Your task to perform on an android device: What are the new products by Samsung? Image 0: 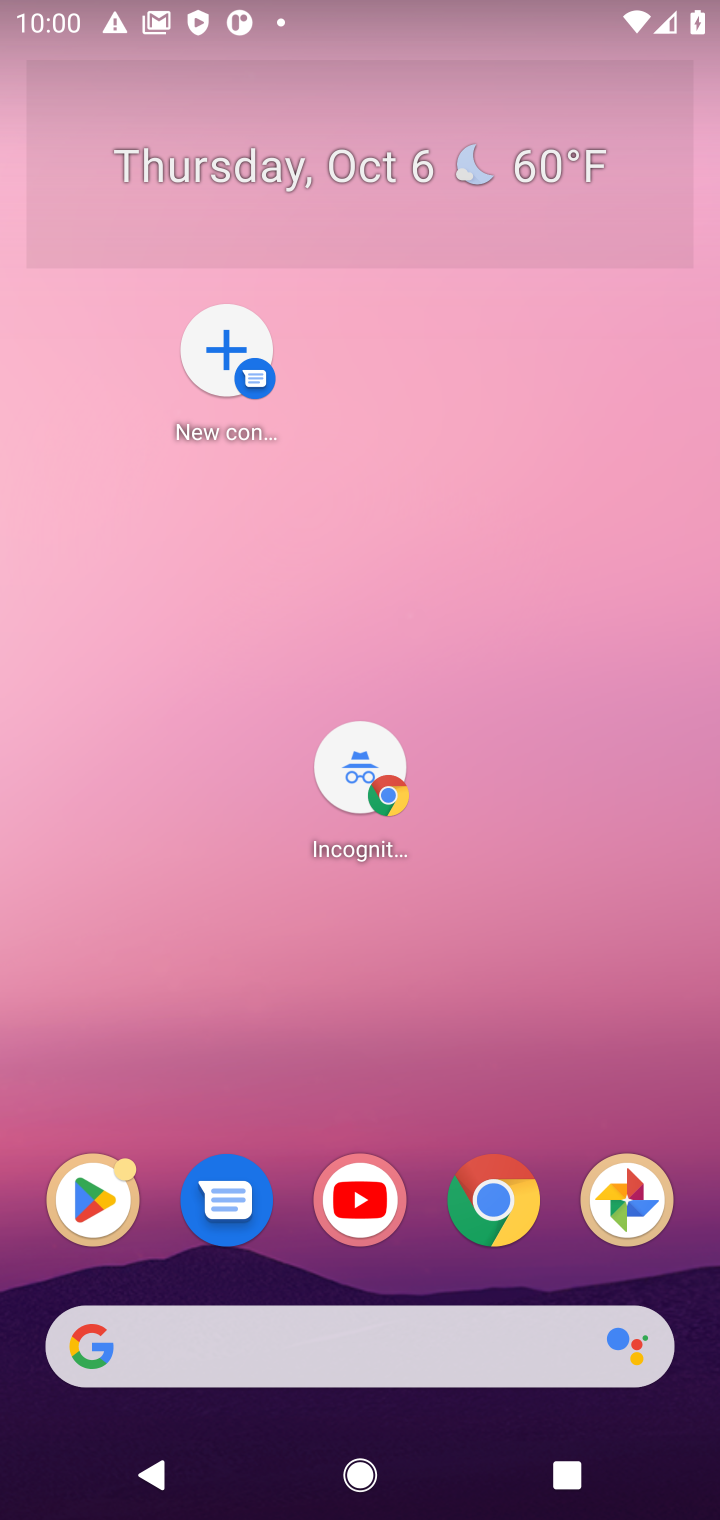
Step 0: drag from (275, 1327) to (275, 406)
Your task to perform on an android device: What are the new products by Samsung? Image 1: 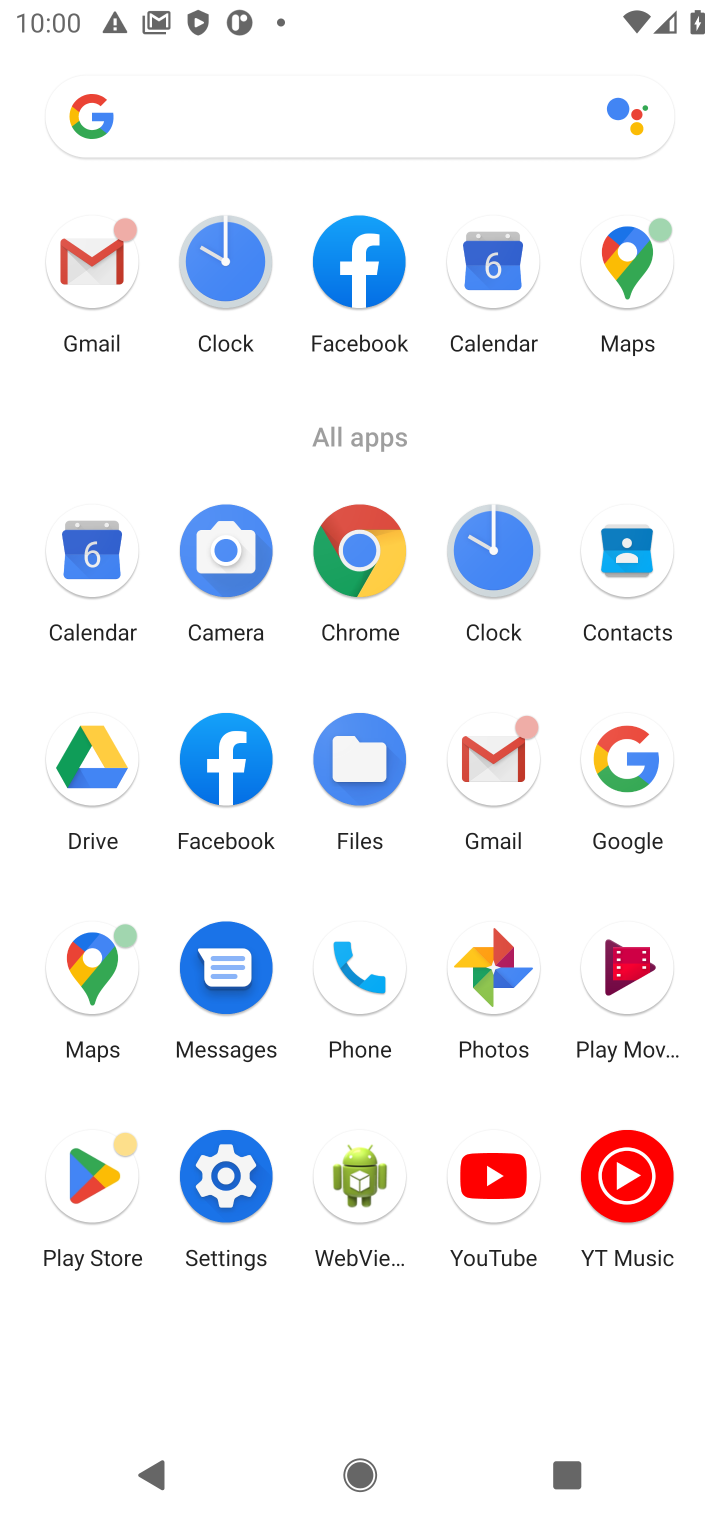
Step 1: click (625, 760)
Your task to perform on an android device: What are the new products by Samsung? Image 2: 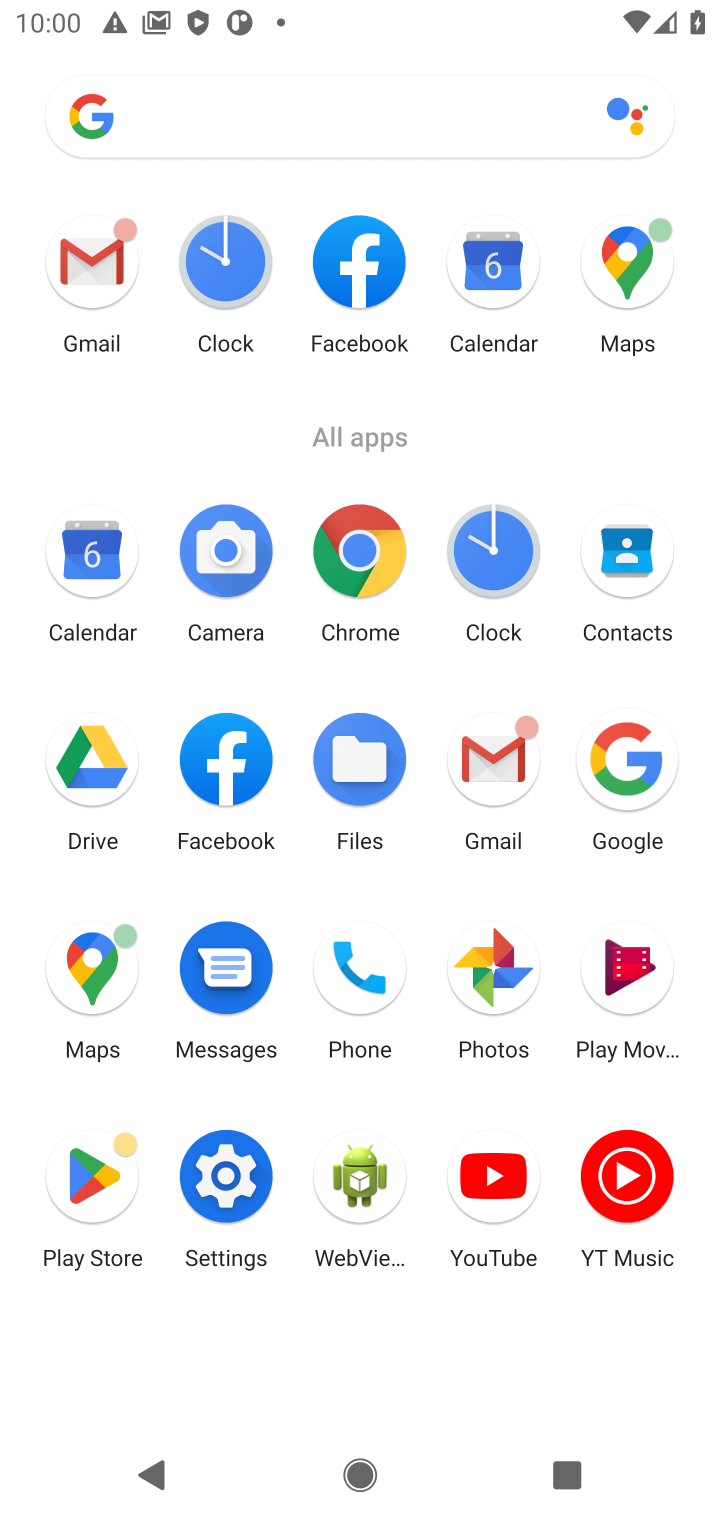
Step 2: click (625, 760)
Your task to perform on an android device: What are the new products by Samsung? Image 3: 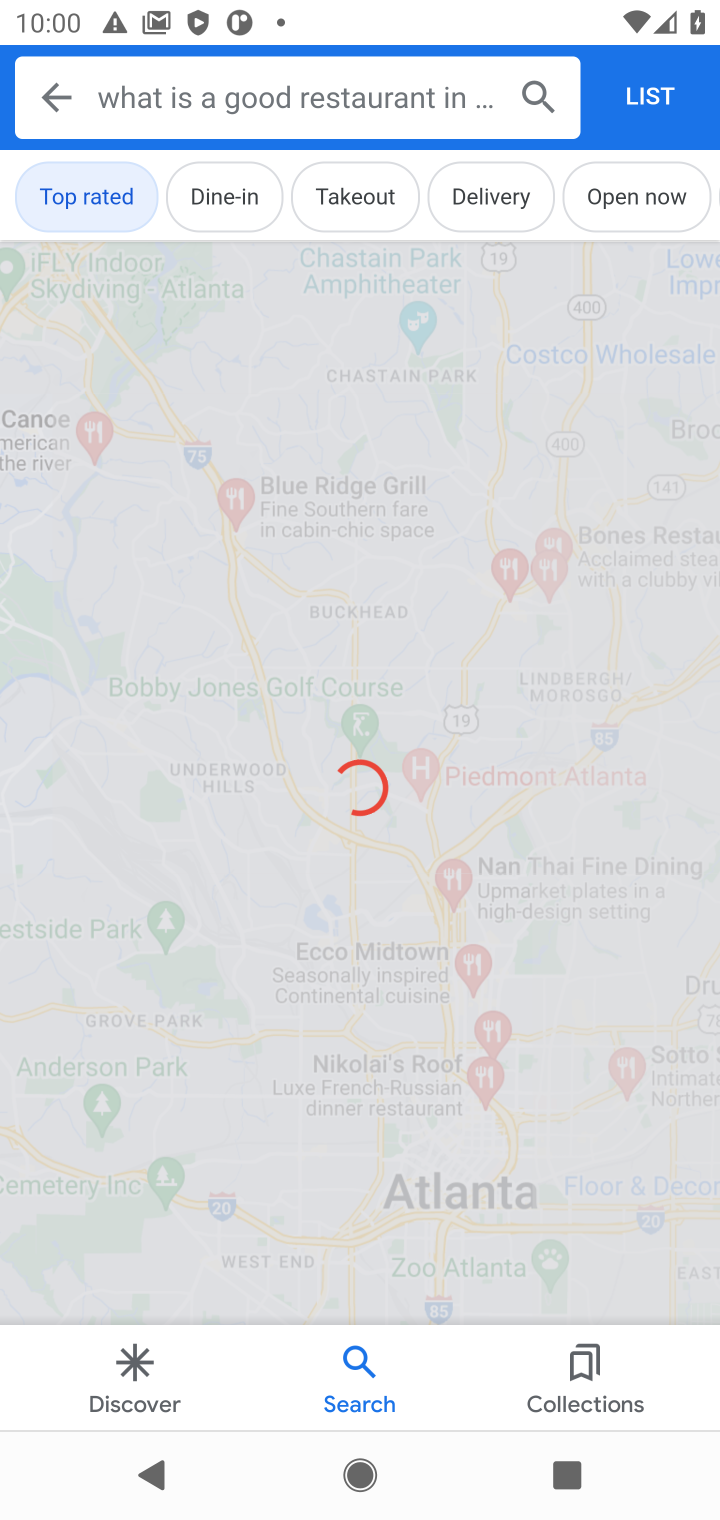
Step 3: click (456, 110)
Your task to perform on an android device: What are the new products by Samsung? Image 4: 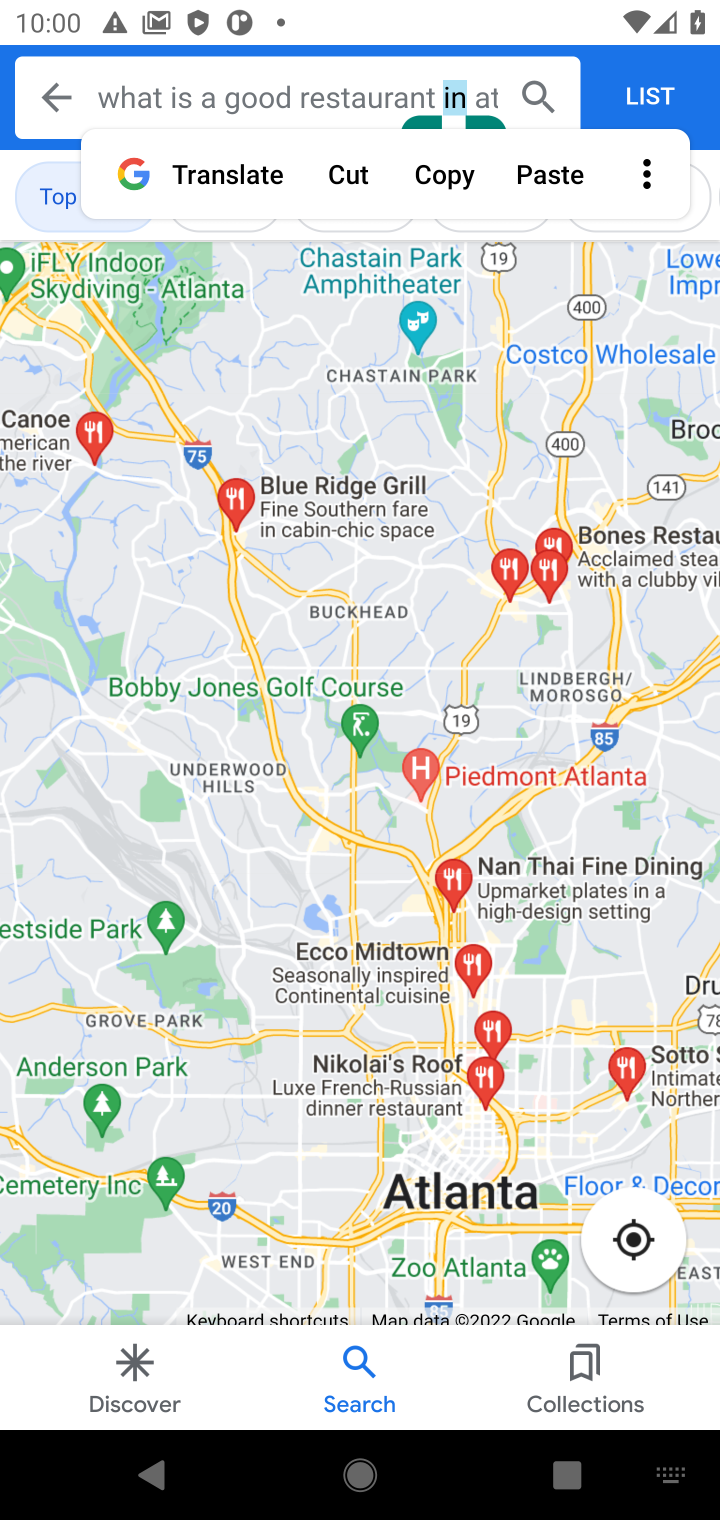
Step 4: click (547, 105)
Your task to perform on an android device: What are the new products by Samsung? Image 5: 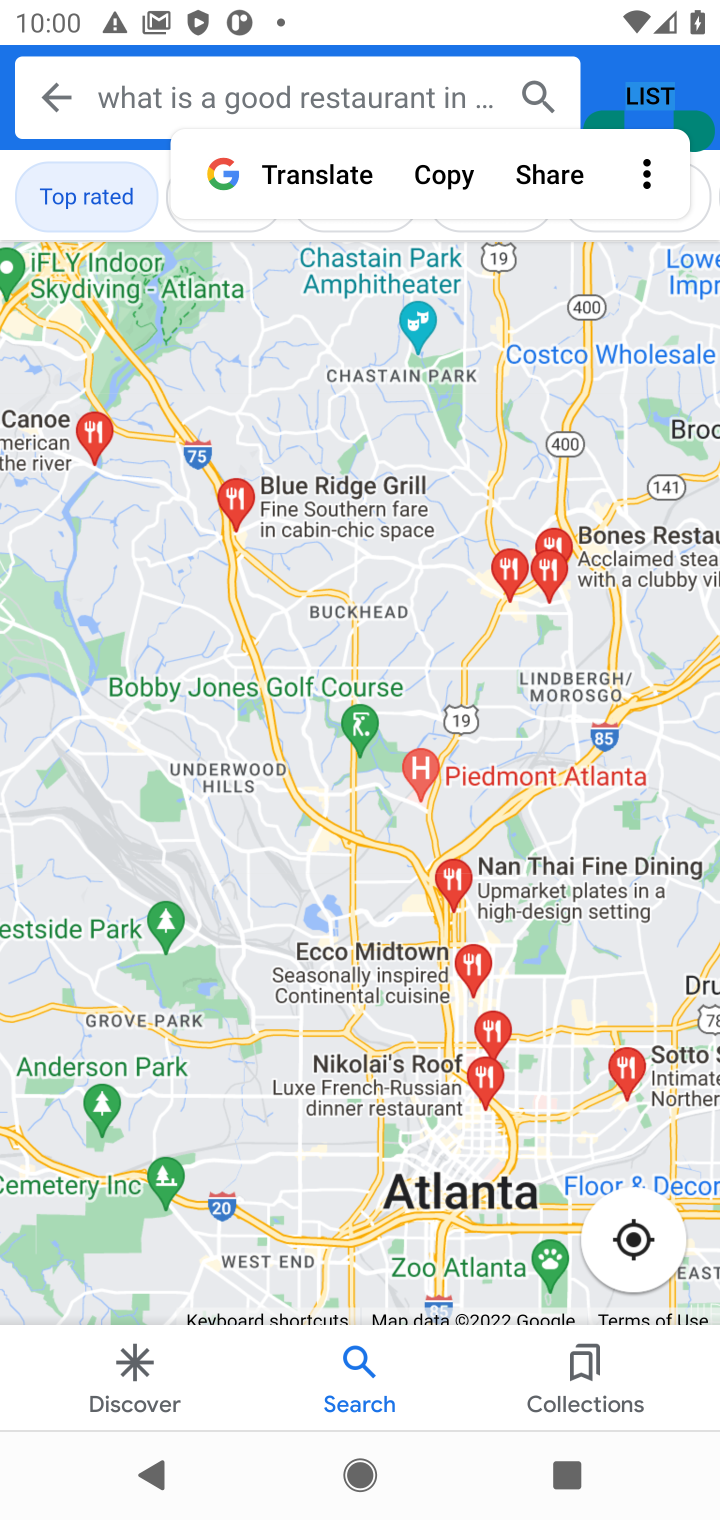
Step 5: click (31, 105)
Your task to perform on an android device: What are the new products by Samsung? Image 6: 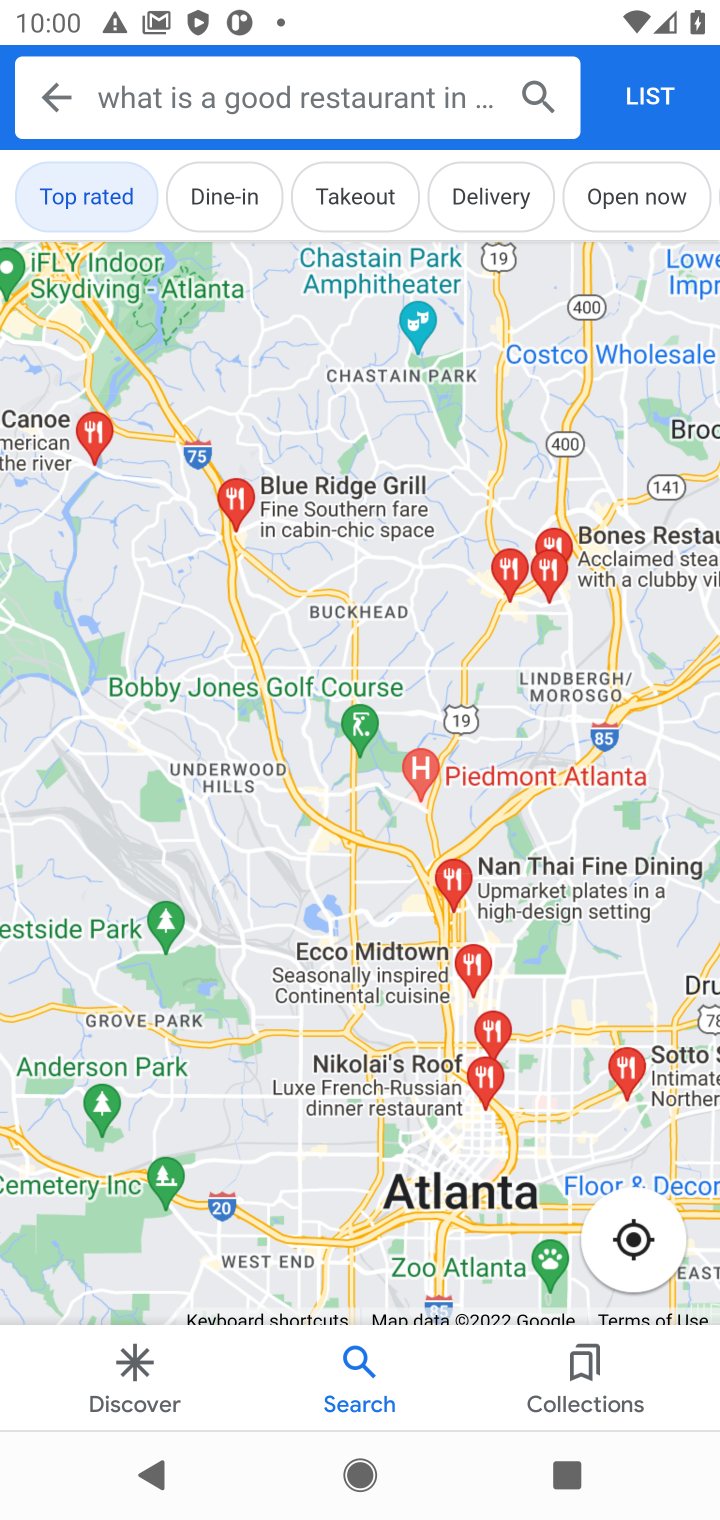
Step 6: click (48, 97)
Your task to perform on an android device: What are the new products by Samsung? Image 7: 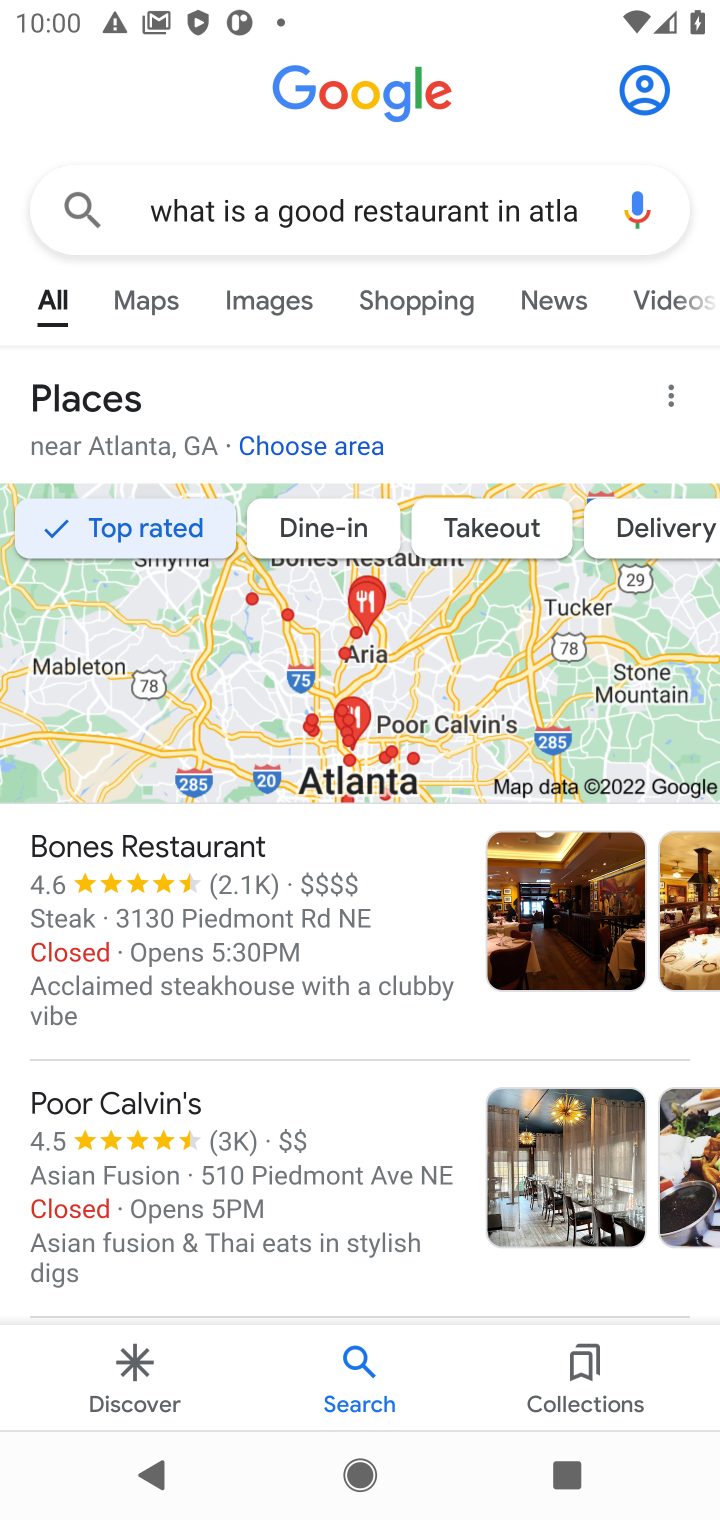
Step 7: click (377, 202)
Your task to perform on an android device: What are the new products by Samsung? Image 8: 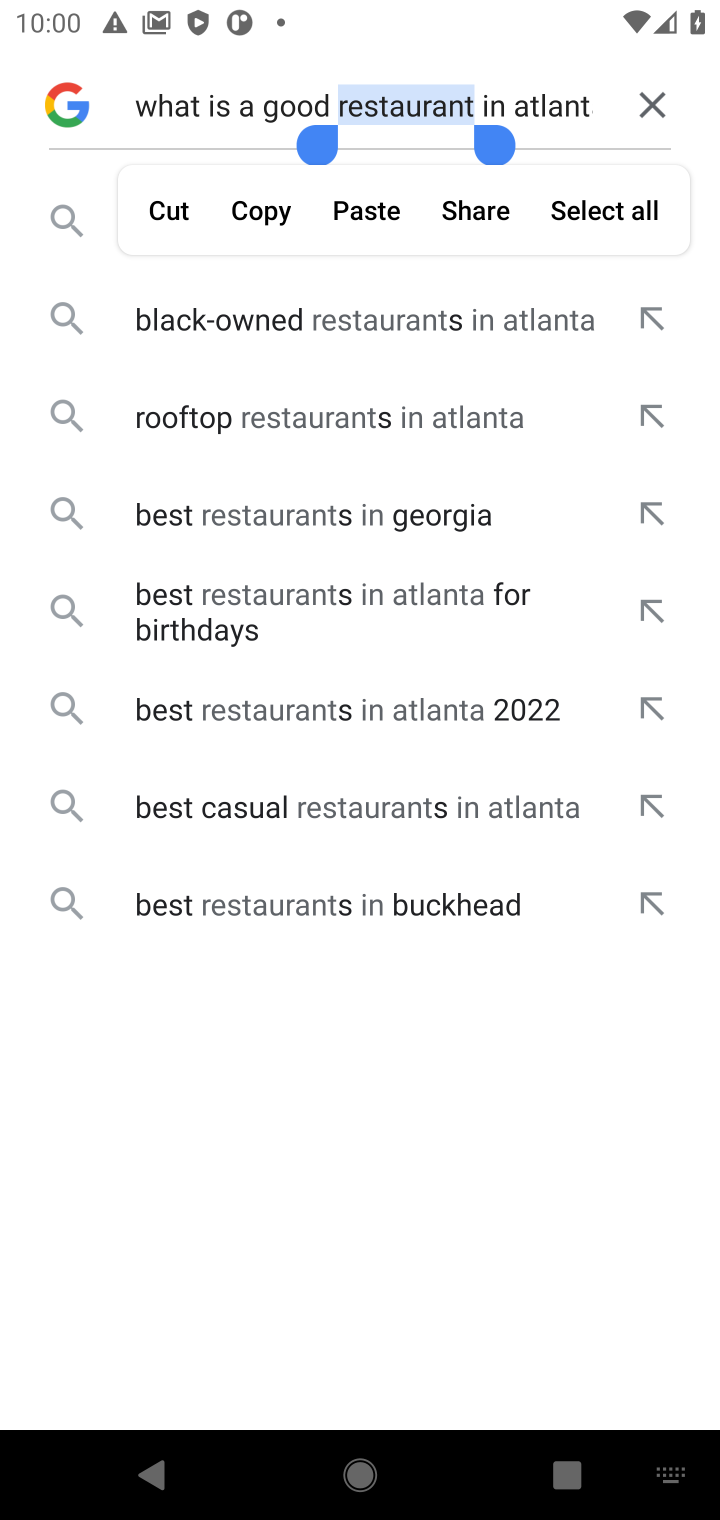
Step 8: click (654, 103)
Your task to perform on an android device: What are the new products by Samsung? Image 9: 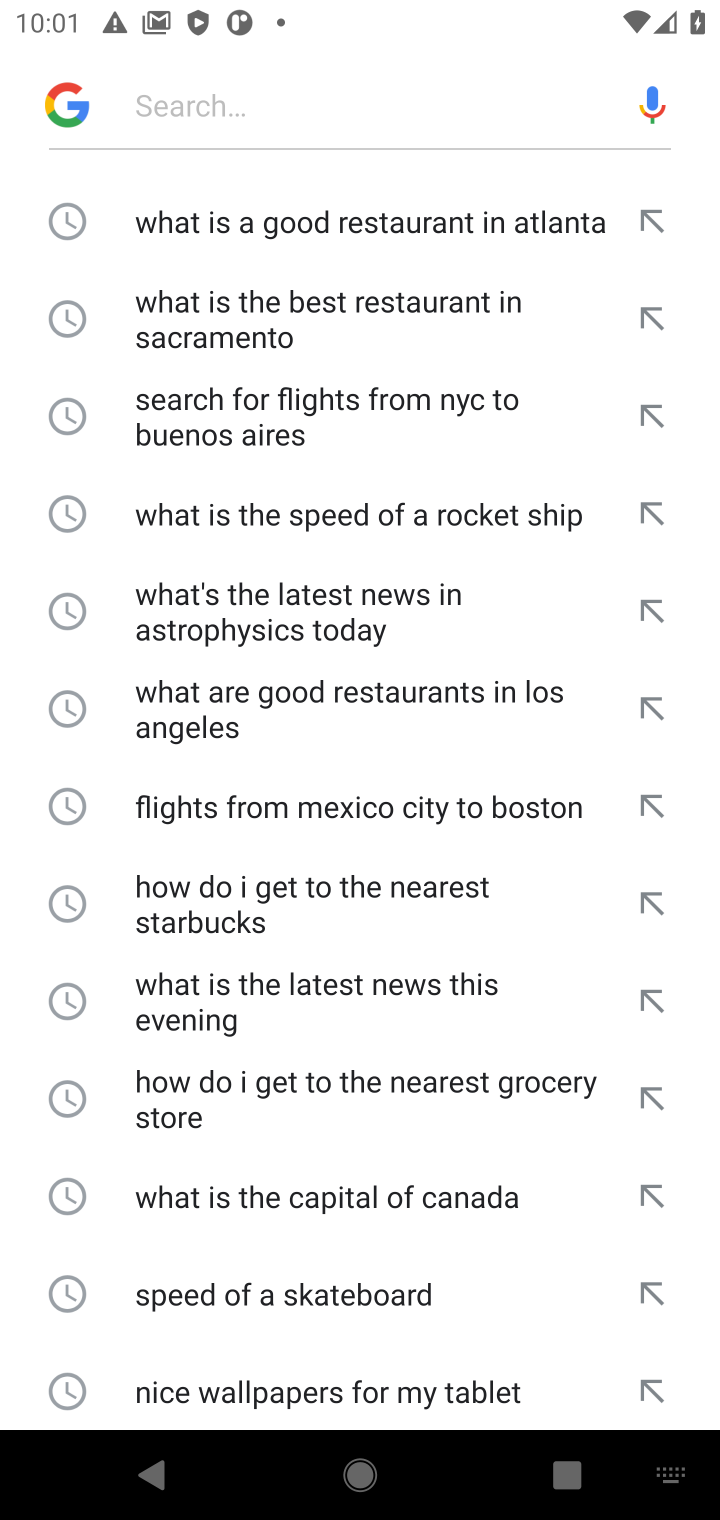
Step 9: type "What are the new products by Samsung?"
Your task to perform on an android device: What are the new products by Samsung? Image 10: 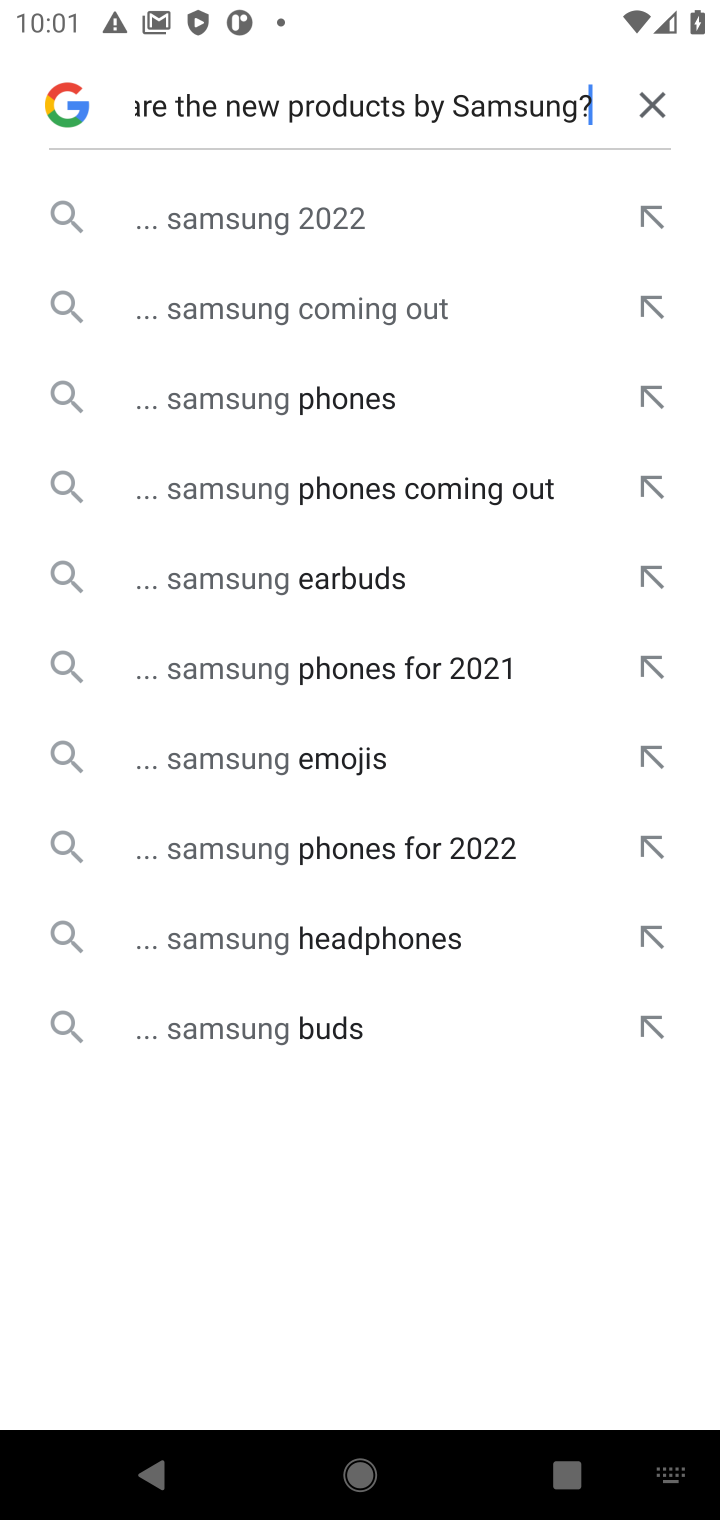
Step 10: click (341, 225)
Your task to perform on an android device: What are the new products by Samsung? Image 11: 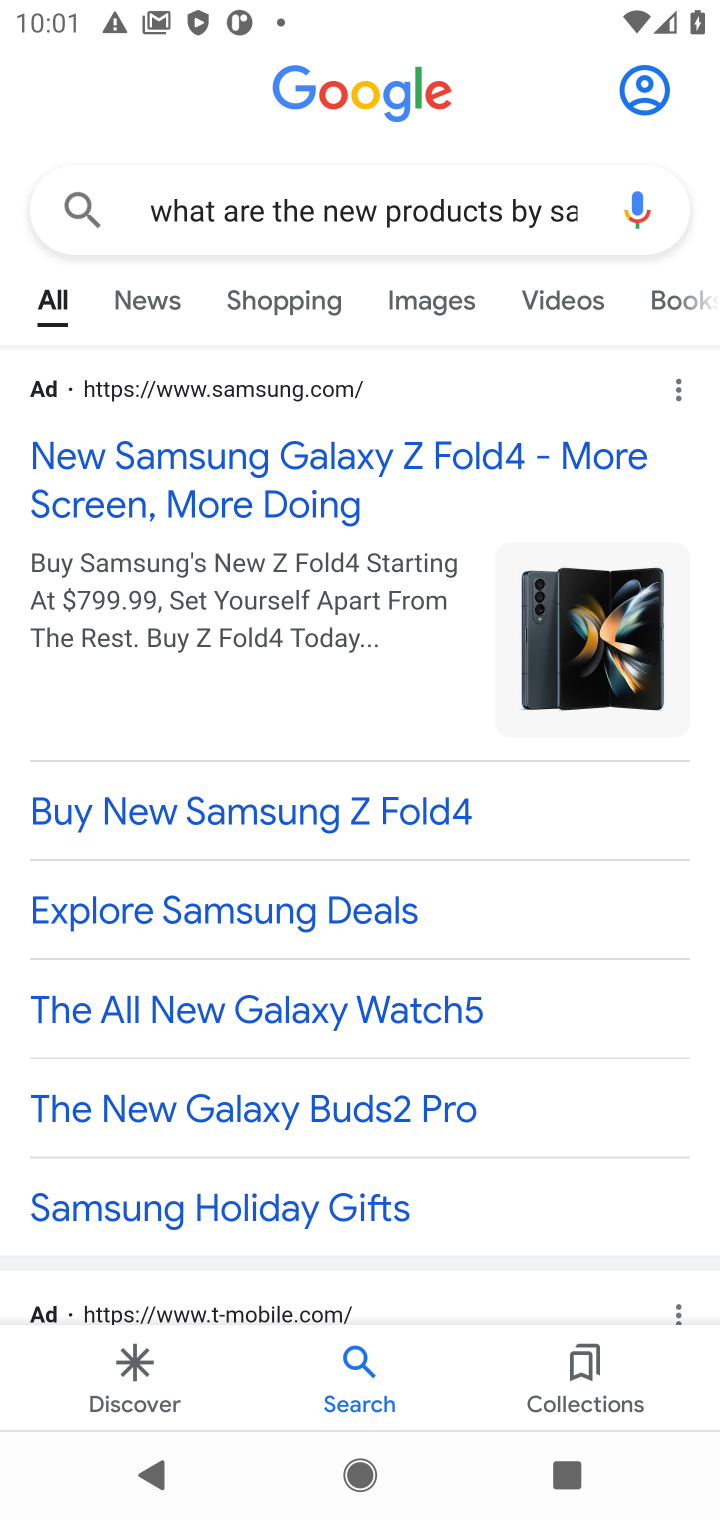
Step 11: click (318, 769)
Your task to perform on an android device: What are the new products by Samsung? Image 12: 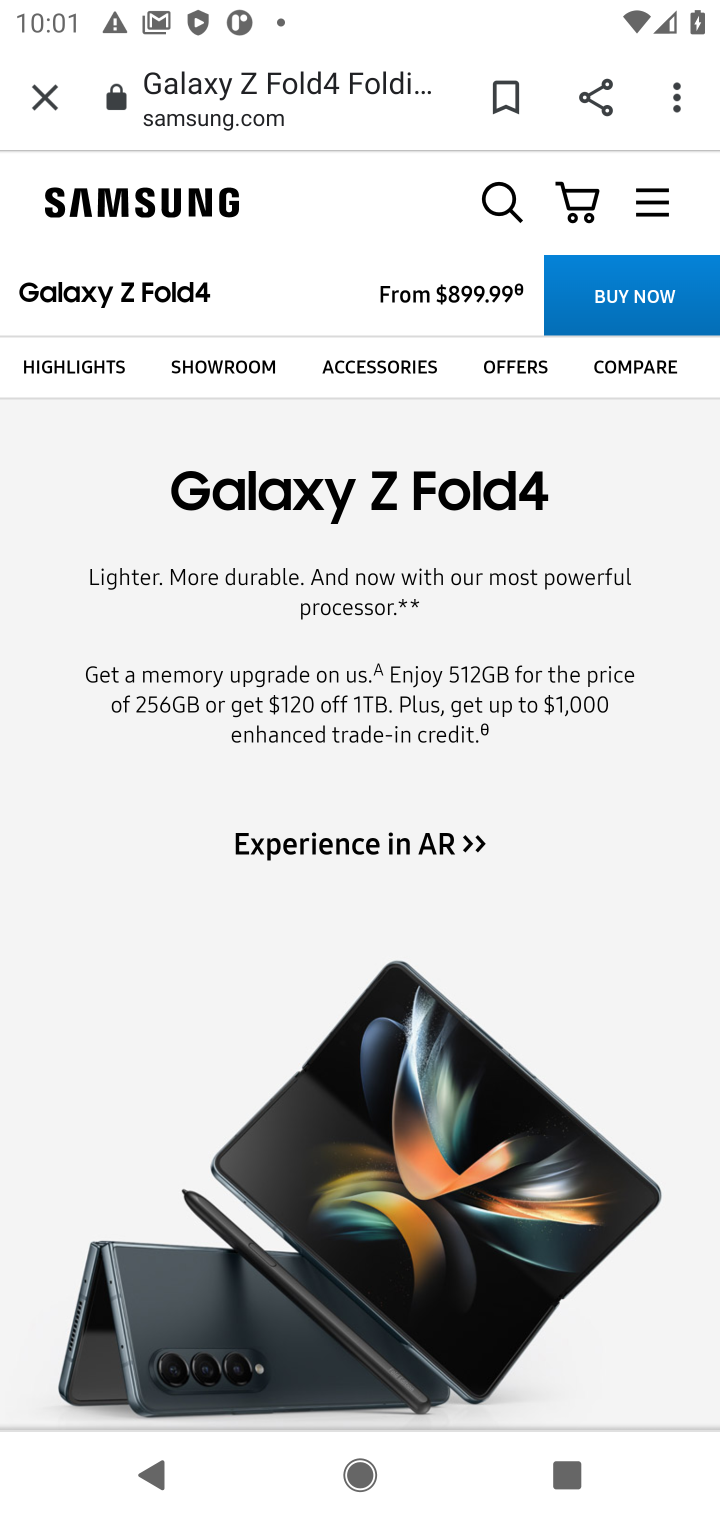
Step 12: task complete